Your task to perform on an android device: change timer sound Image 0: 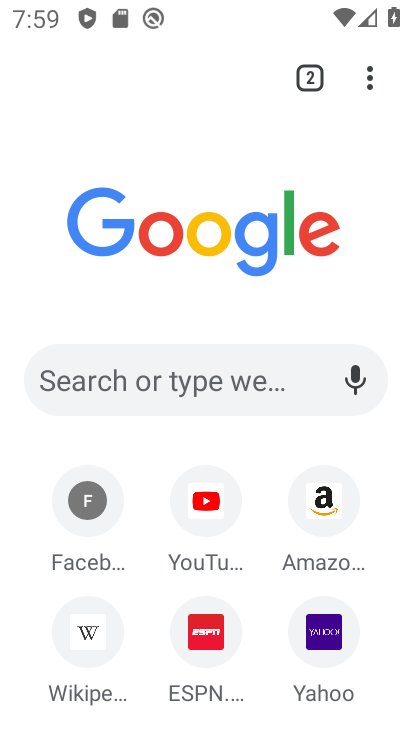
Step 0: press home button
Your task to perform on an android device: change timer sound Image 1: 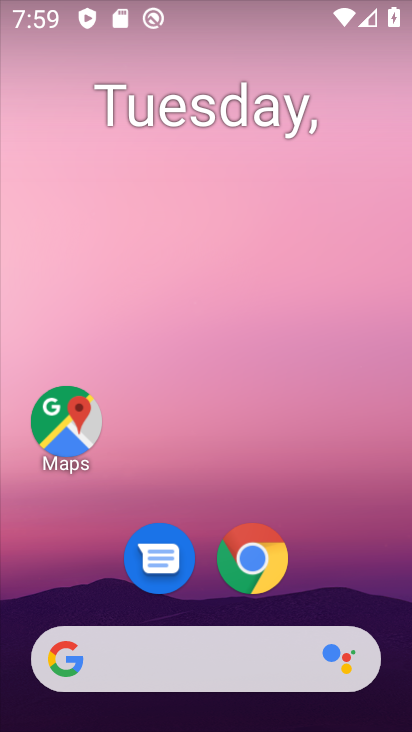
Step 1: drag from (210, 624) to (161, 59)
Your task to perform on an android device: change timer sound Image 2: 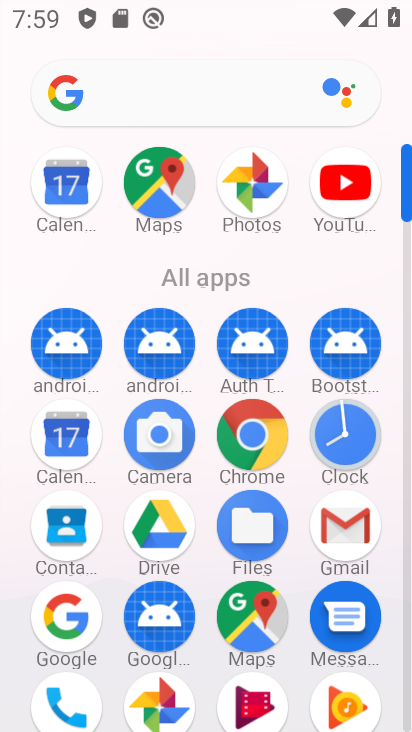
Step 2: click (327, 423)
Your task to perform on an android device: change timer sound Image 3: 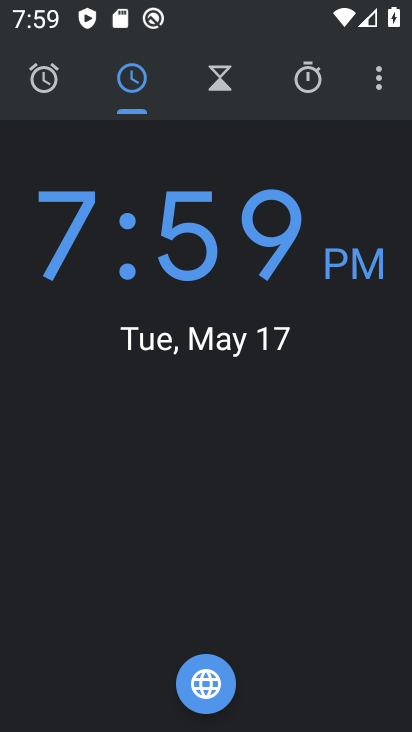
Step 3: click (372, 89)
Your task to perform on an android device: change timer sound Image 4: 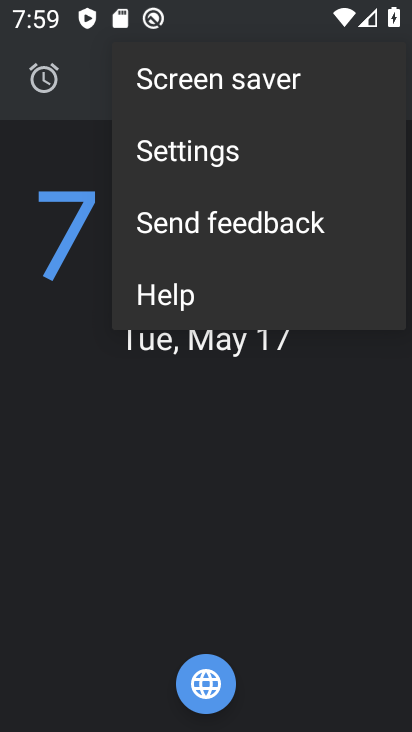
Step 4: click (204, 144)
Your task to perform on an android device: change timer sound Image 5: 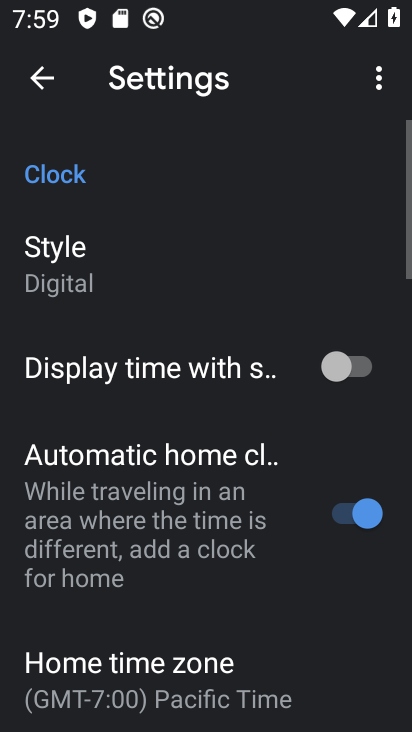
Step 5: drag from (146, 532) to (70, 86)
Your task to perform on an android device: change timer sound Image 6: 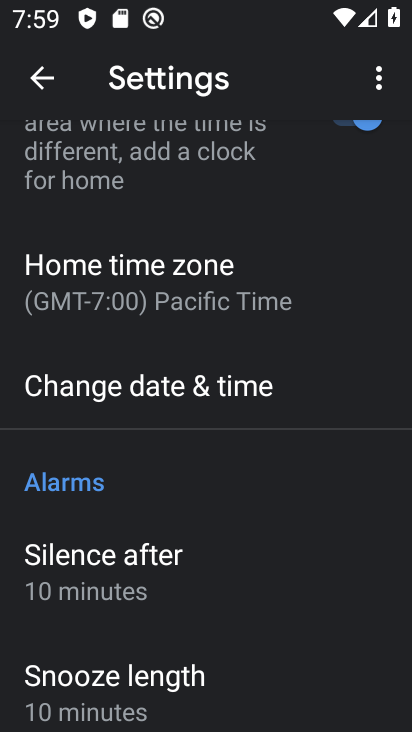
Step 6: drag from (136, 563) to (131, 181)
Your task to perform on an android device: change timer sound Image 7: 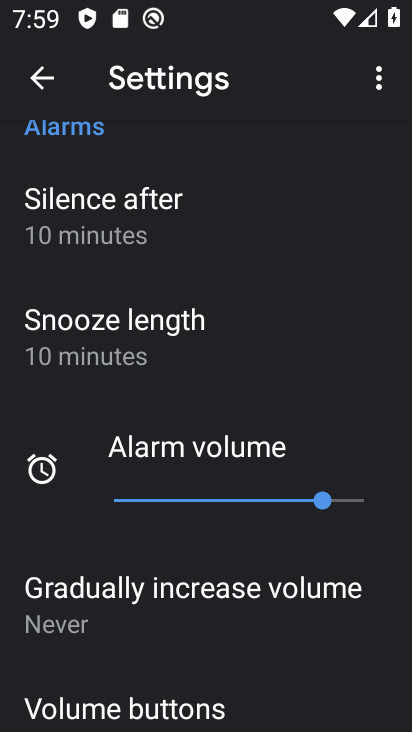
Step 7: drag from (230, 597) to (166, 173)
Your task to perform on an android device: change timer sound Image 8: 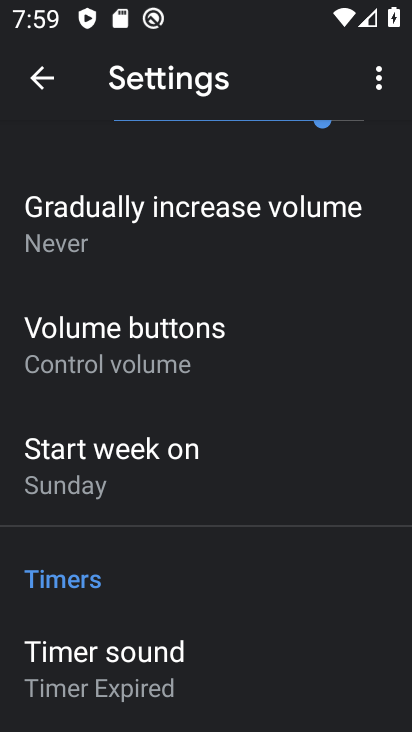
Step 8: click (223, 678)
Your task to perform on an android device: change timer sound Image 9: 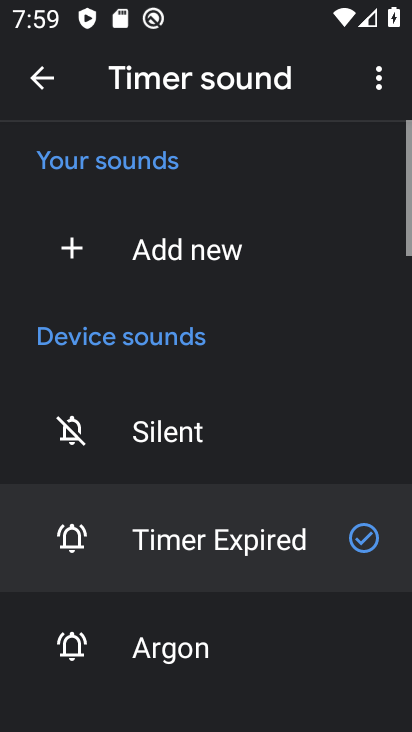
Step 9: click (204, 632)
Your task to perform on an android device: change timer sound Image 10: 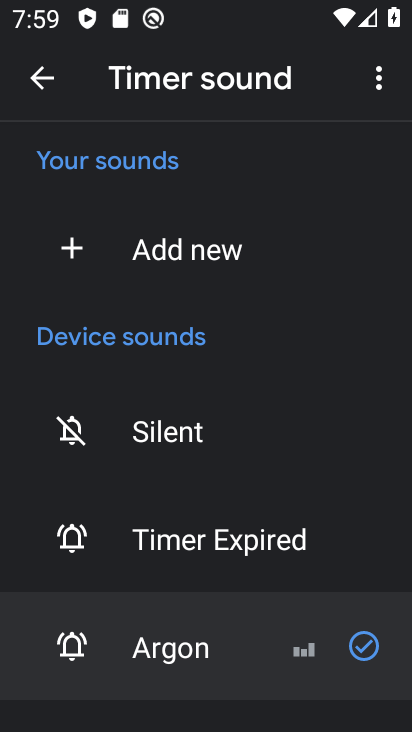
Step 10: task complete